Your task to perform on an android device: Open location settings Image 0: 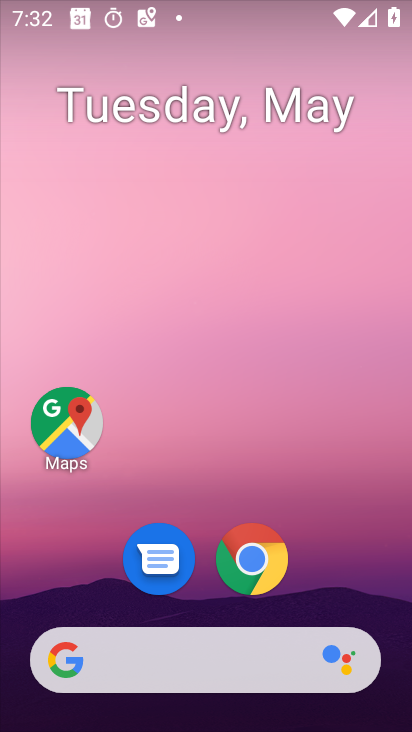
Step 0: drag from (396, 485) to (309, 82)
Your task to perform on an android device: Open location settings Image 1: 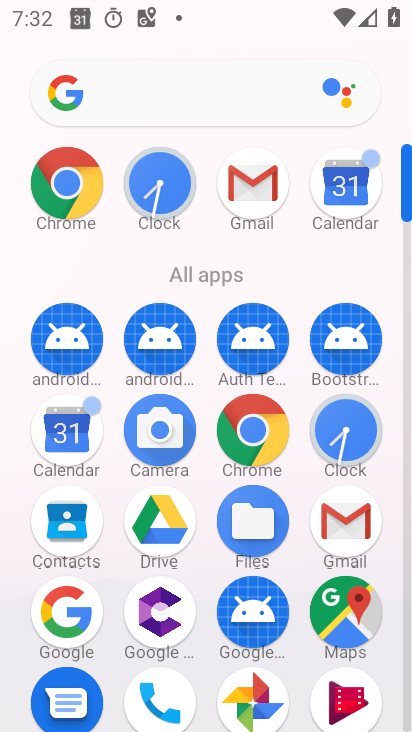
Step 1: drag from (205, 659) to (224, 147)
Your task to perform on an android device: Open location settings Image 2: 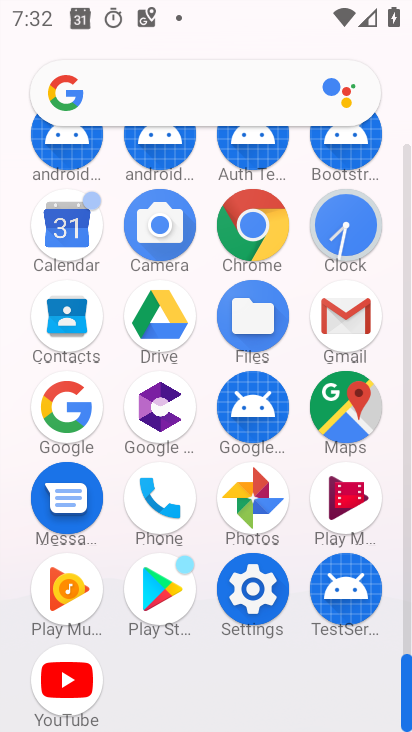
Step 2: click (243, 607)
Your task to perform on an android device: Open location settings Image 3: 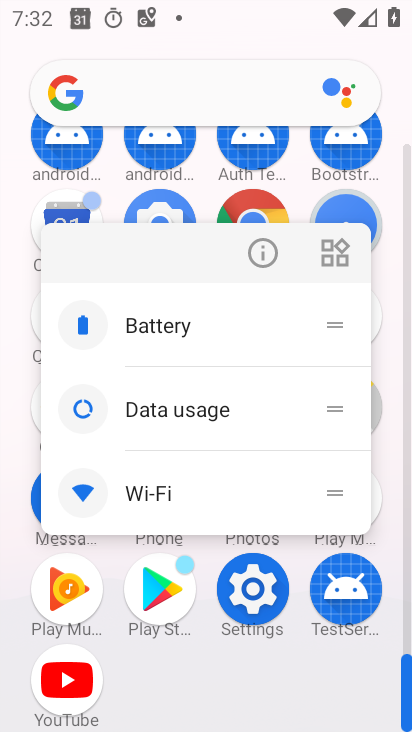
Step 3: click (260, 596)
Your task to perform on an android device: Open location settings Image 4: 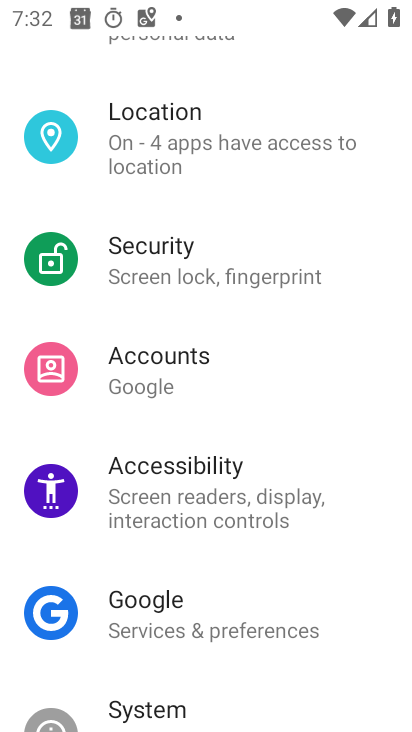
Step 4: click (211, 175)
Your task to perform on an android device: Open location settings Image 5: 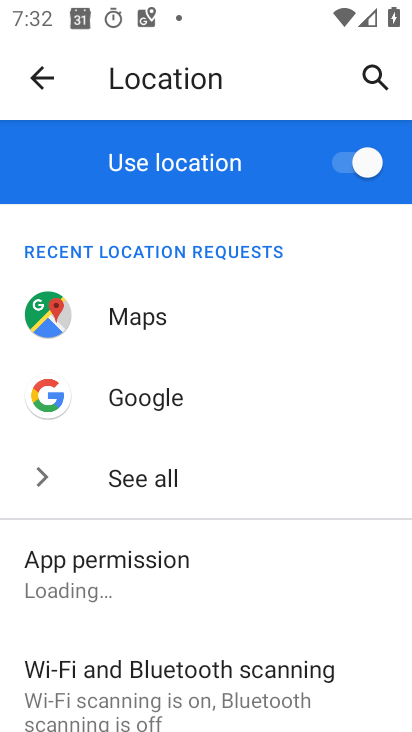
Step 5: task complete